Your task to perform on an android device: toggle improve location accuracy Image 0: 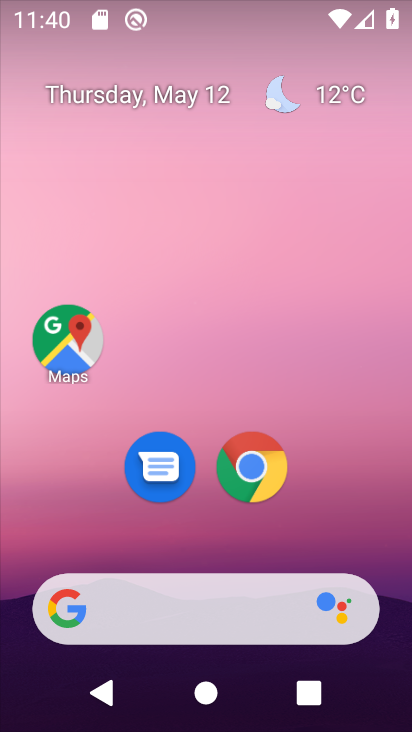
Step 0: drag from (322, 463) to (277, 137)
Your task to perform on an android device: toggle improve location accuracy Image 1: 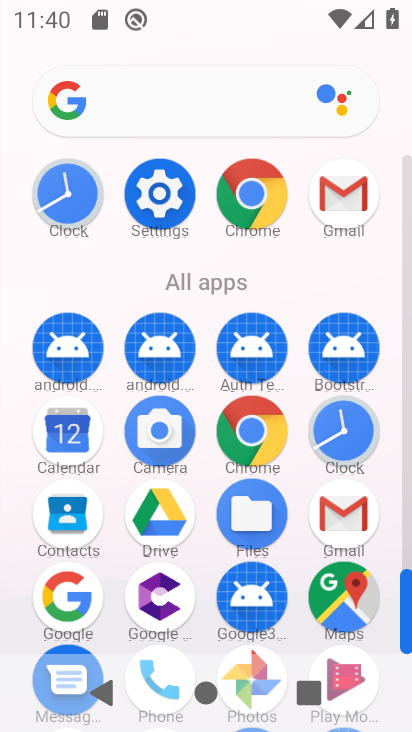
Step 1: click (159, 187)
Your task to perform on an android device: toggle improve location accuracy Image 2: 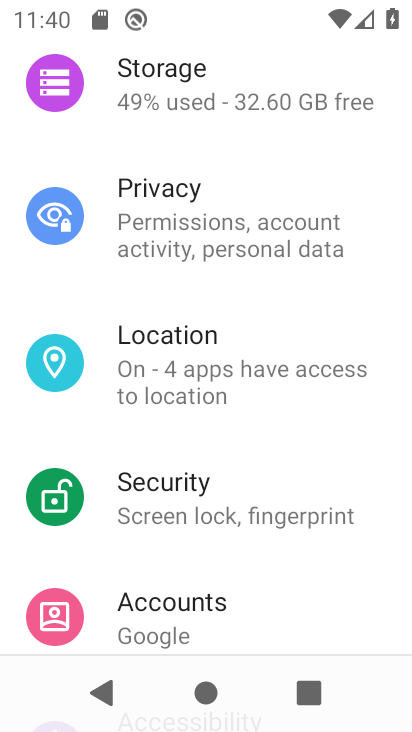
Step 2: click (221, 367)
Your task to perform on an android device: toggle improve location accuracy Image 3: 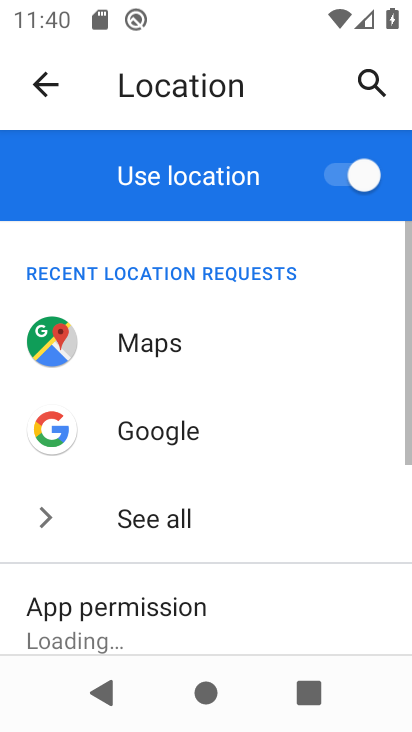
Step 3: drag from (271, 613) to (200, 179)
Your task to perform on an android device: toggle improve location accuracy Image 4: 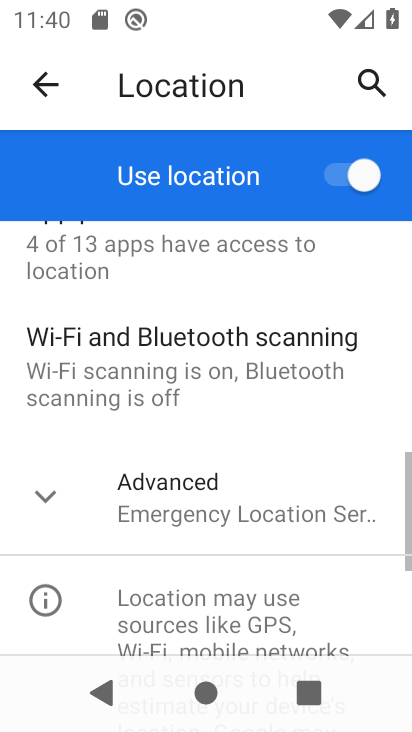
Step 4: click (214, 484)
Your task to perform on an android device: toggle improve location accuracy Image 5: 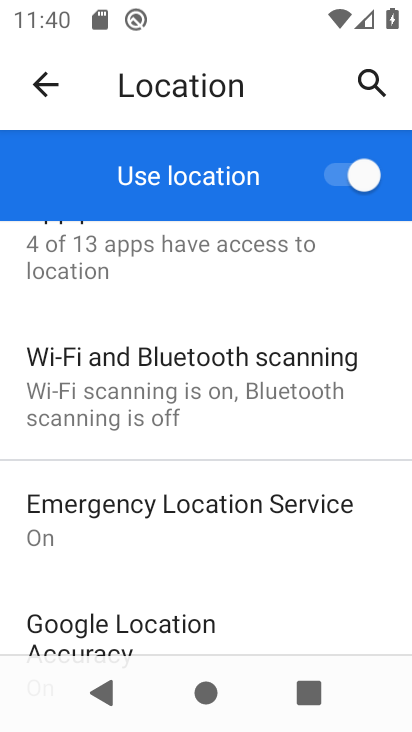
Step 5: click (216, 613)
Your task to perform on an android device: toggle improve location accuracy Image 6: 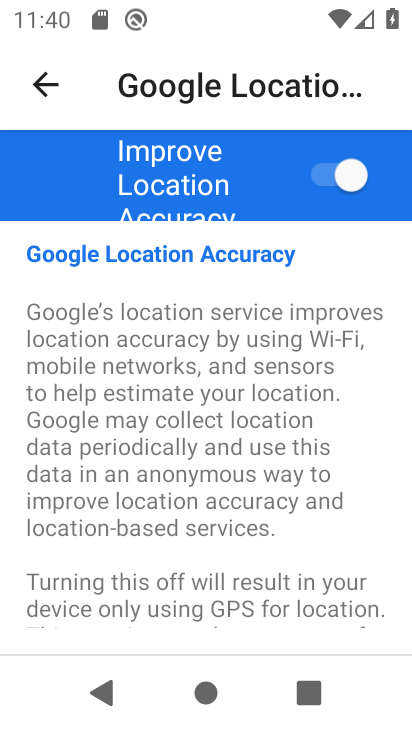
Step 6: click (345, 160)
Your task to perform on an android device: toggle improve location accuracy Image 7: 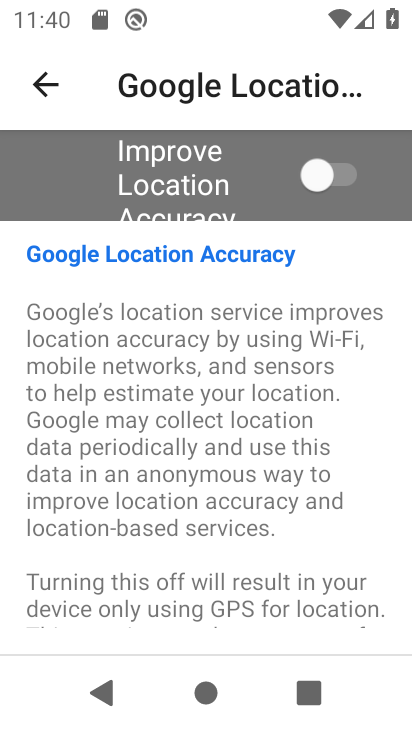
Step 7: task complete